Your task to perform on an android device: Show the shopping cart on newegg. Add sony triple a to the cart on newegg, then select checkout. Image 0: 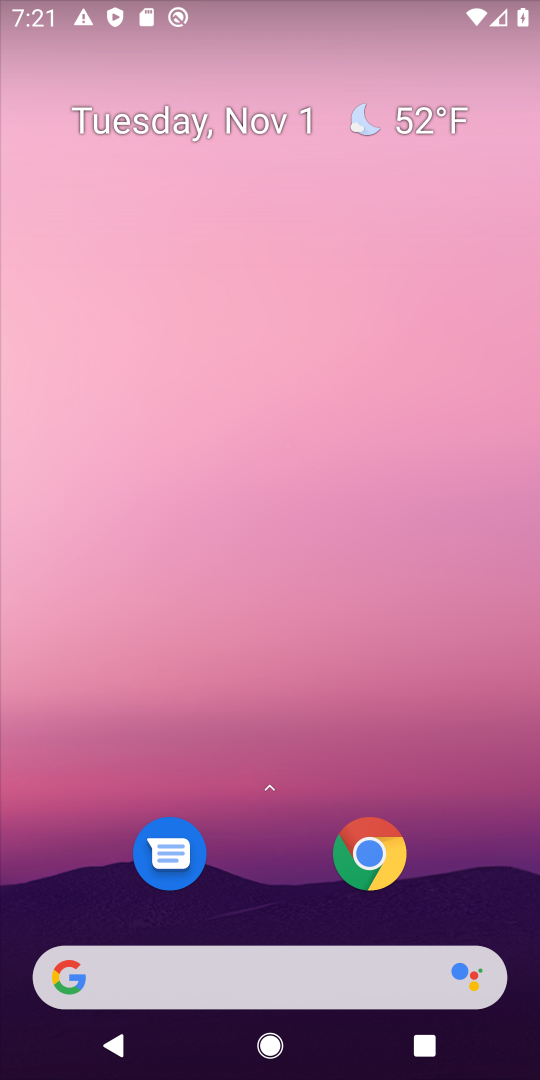
Step 0: click (310, 967)
Your task to perform on an android device: Show the shopping cart on newegg. Add sony triple a to the cart on newegg, then select checkout. Image 1: 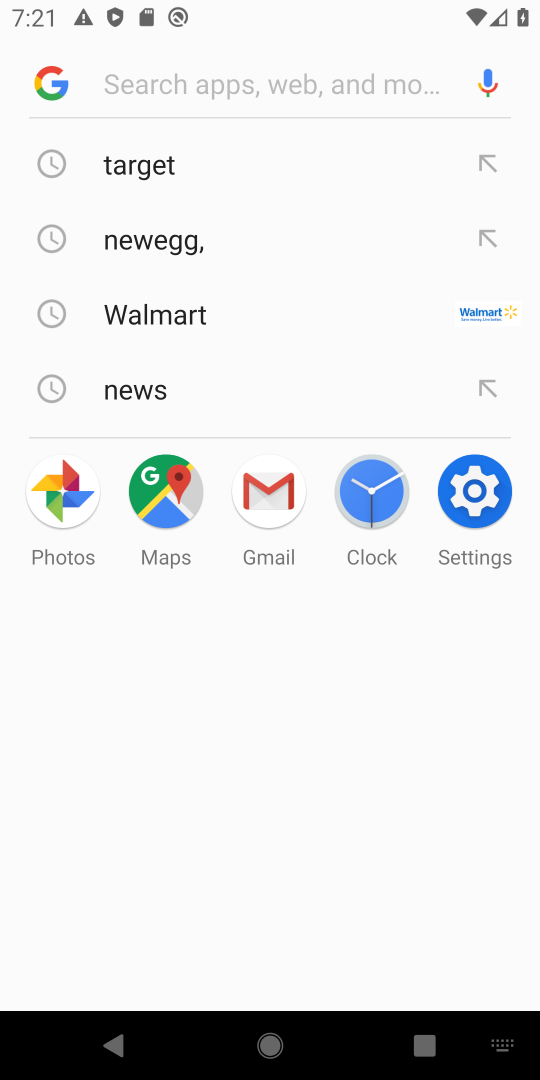
Step 1: click (173, 265)
Your task to perform on an android device: Show the shopping cart on newegg. Add sony triple a to the cart on newegg, then select checkout. Image 2: 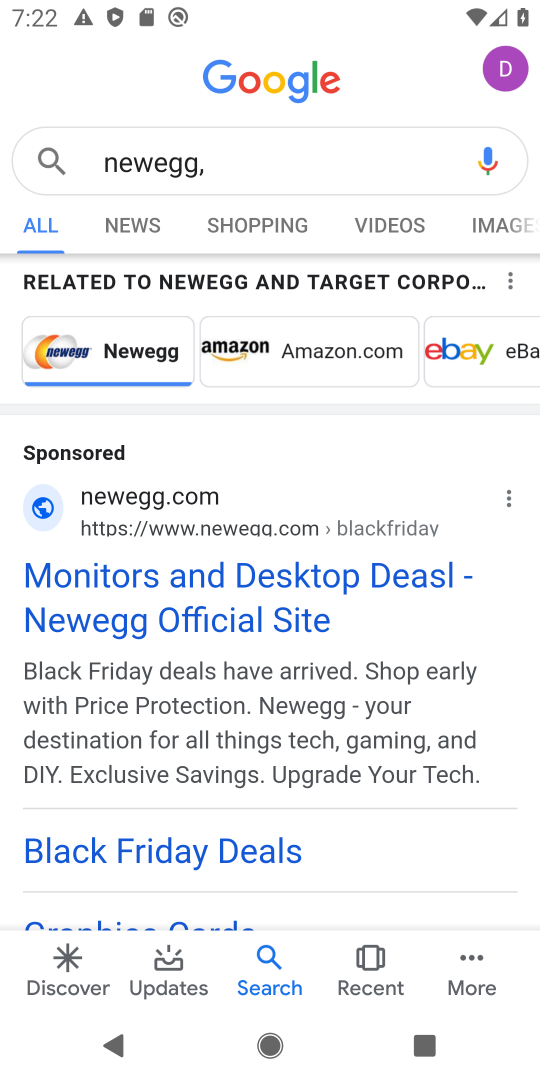
Step 2: click (273, 629)
Your task to perform on an android device: Show the shopping cart on newegg. Add sony triple a to the cart on newegg, then select checkout. Image 3: 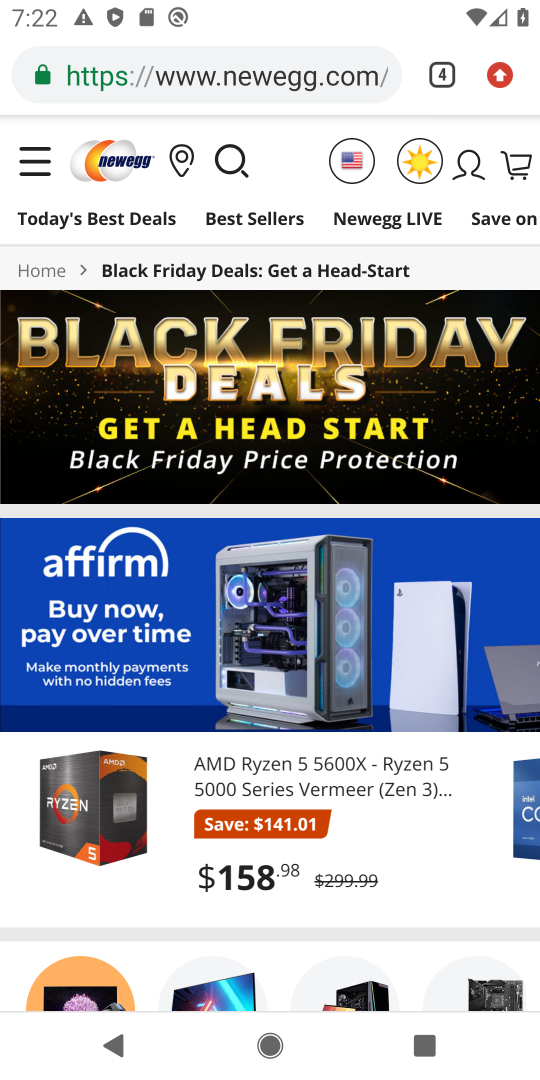
Step 3: click (248, 171)
Your task to perform on an android device: Show the shopping cart on newegg. Add sony triple a to the cart on newegg, then select checkout. Image 4: 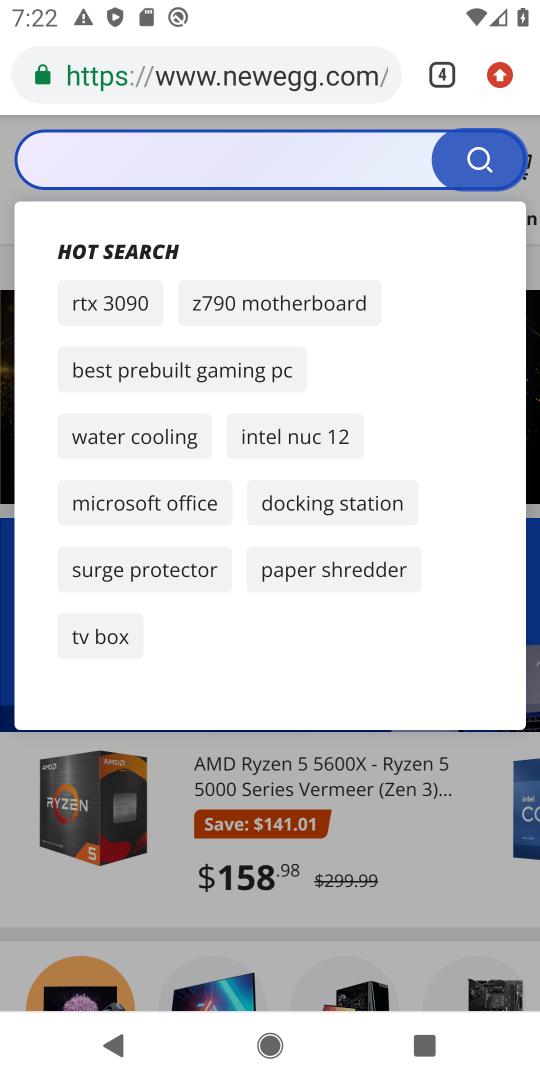
Step 4: type "sony triple A"
Your task to perform on an android device: Show the shopping cart on newegg. Add sony triple a to the cart on newegg, then select checkout. Image 5: 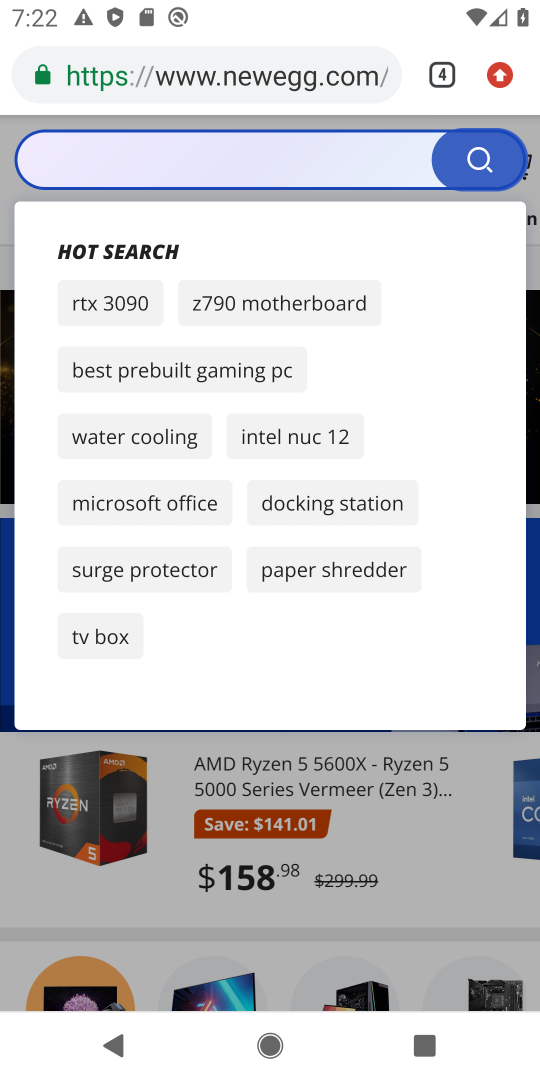
Step 5: click (207, 144)
Your task to perform on an android device: Show the shopping cart on newegg. Add sony triple a to the cart on newegg, then select checkout. Image 6: 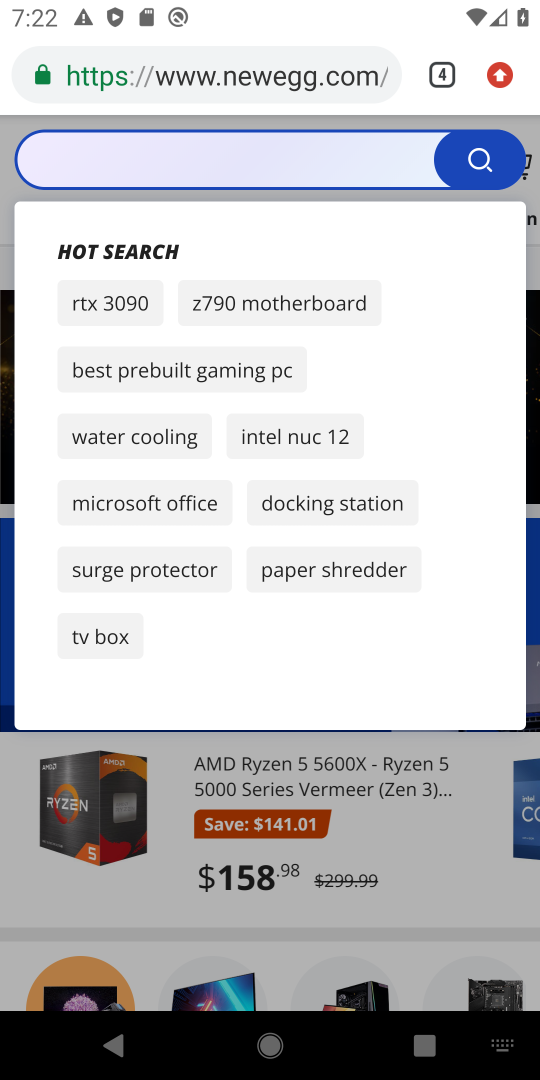
Step 6: type "sony triple A"
Your task to perform on an android device: Show the shopping cart on newegg. Add sony triple a to the cart on newegg, then select checkout. Image 7: 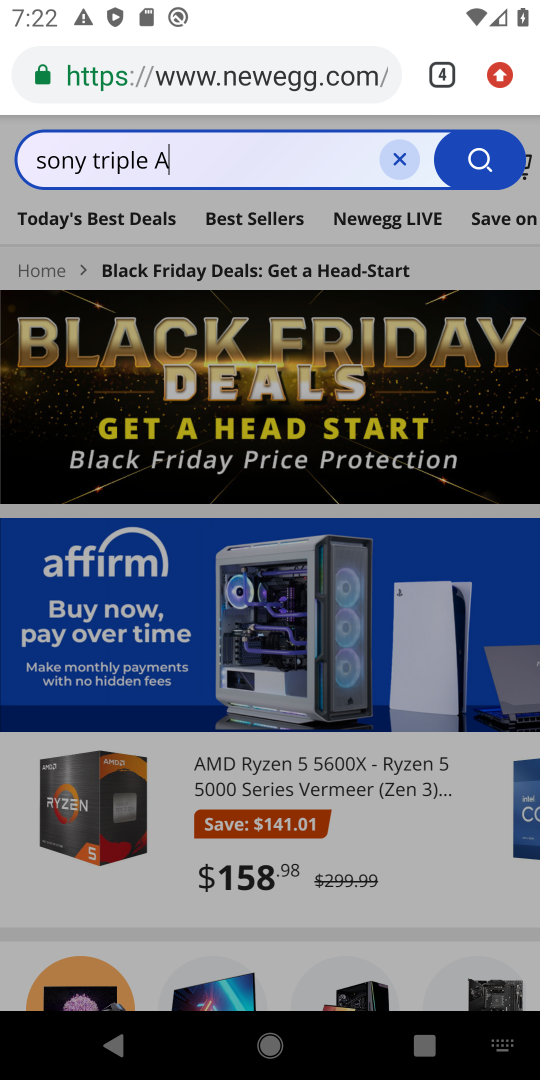
Step 7: click (464, 157)
Your task to perform on an android device: Show the shopping cart on newegg. Add sony triple a to the cart on newegg, then select checkout. Image 8: 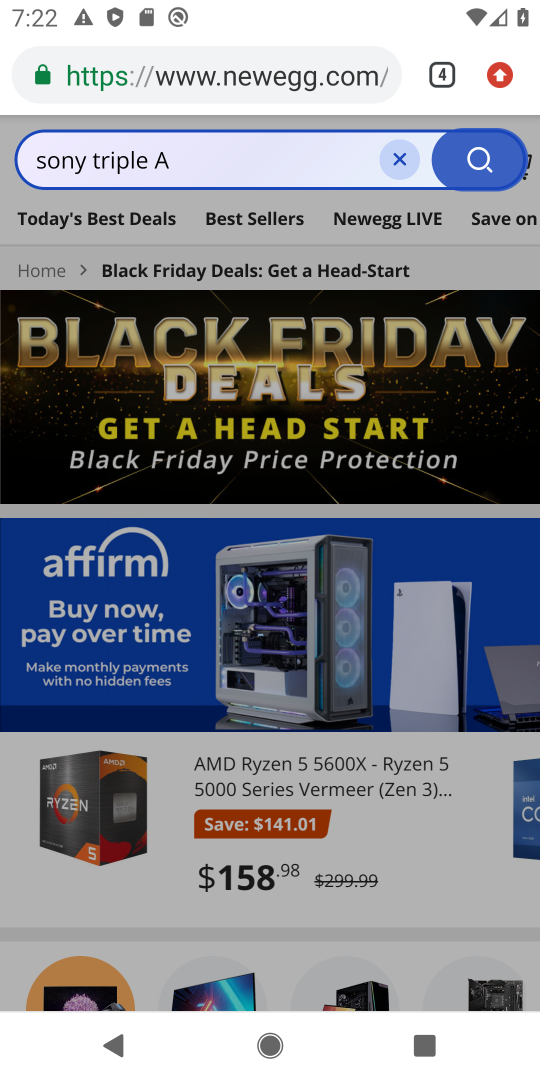
Step 8: click (490, 164)
Your task to perform on an android device: Show the shopping cart on newegg. Add sony triple a to the cart on newegg, then select checkout. Image 9: 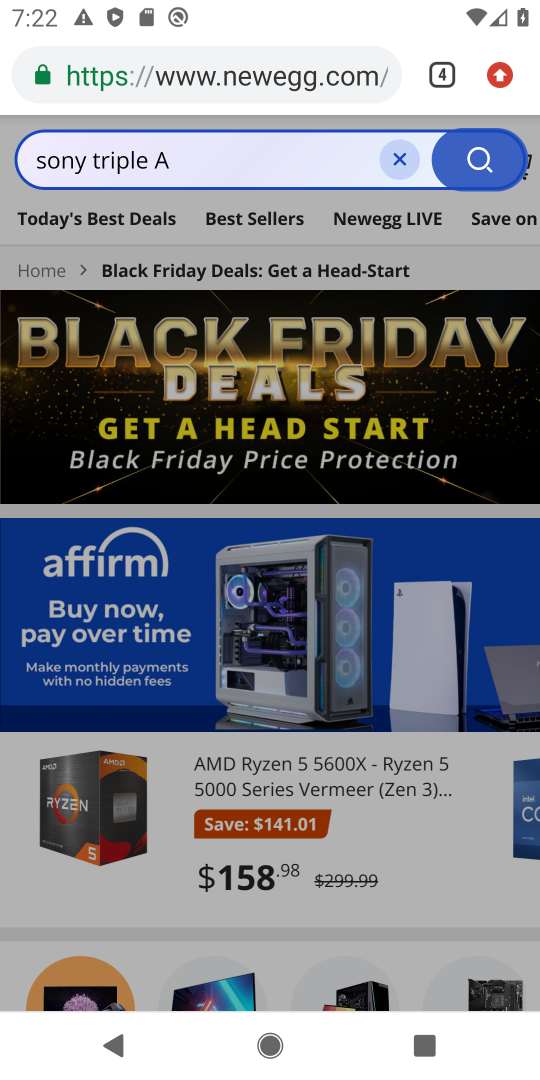
Step 9: click (490, 164)
Your task to perform on an android device: Show the shopping cart on newegg. Add sony triple a to the cart on newegg, then select checkout. Image 10: 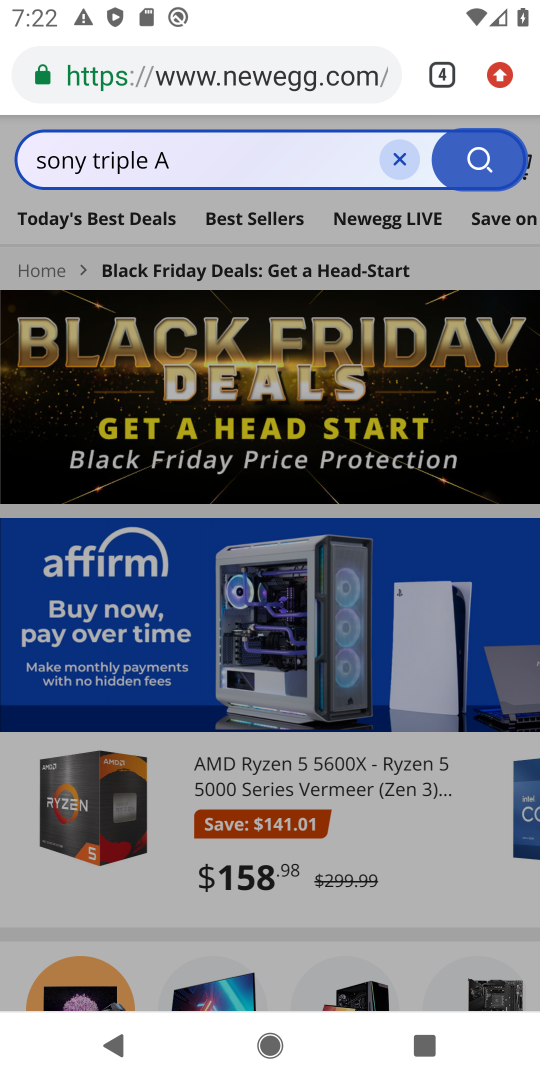
Step 10: click (490, 164)
Your task to perform on an android device: Show the shopping cart on newegg. Add sony triple a to the cart on newegg, then select checkout. Image 11: 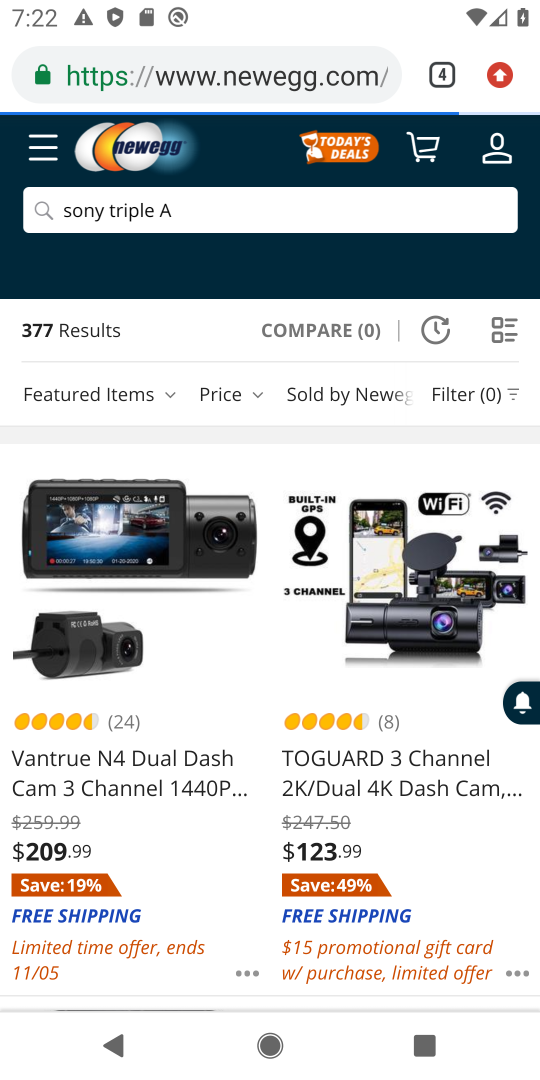
Step 11: drag from (207, 856) to (207, 565)
Your task to perform on an android device: Show the shopping cart on newegg. Add sony triple a to the cart on newegg, then select checkout. Image 12: 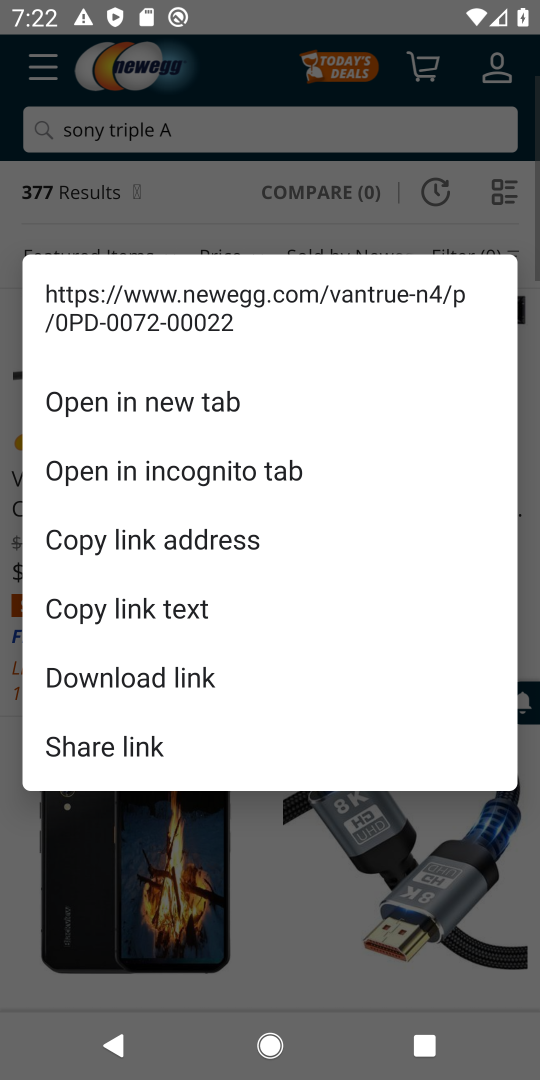
Step 12: click (210, 850)
Your task to perform on an android device: Show the shopping cart on newegg. Add sony triple a to the cart on newegg, then select checkout. Image 13: 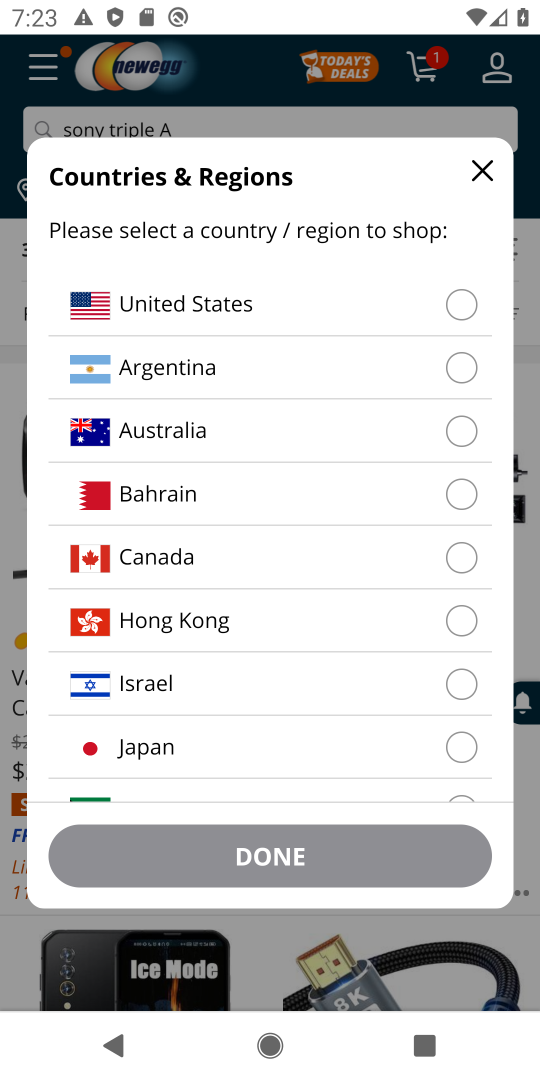
Step 13: task complete